Your task to perform on an android device: Do I have any events this weekend? Image 0: 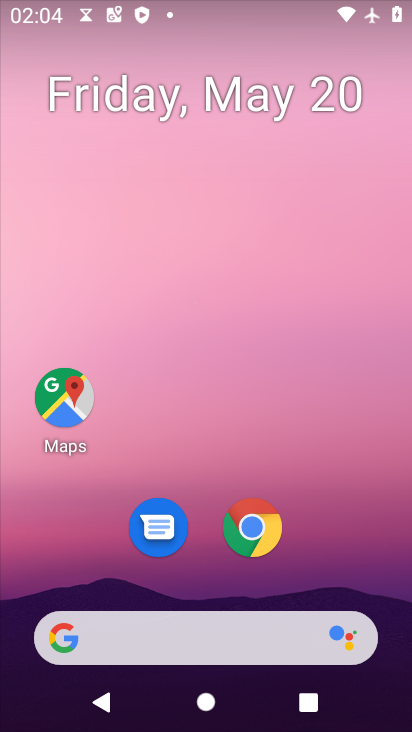
Step 0: press home button
Your task to perform on an android device: Do I have any events this weekend? Image 1: 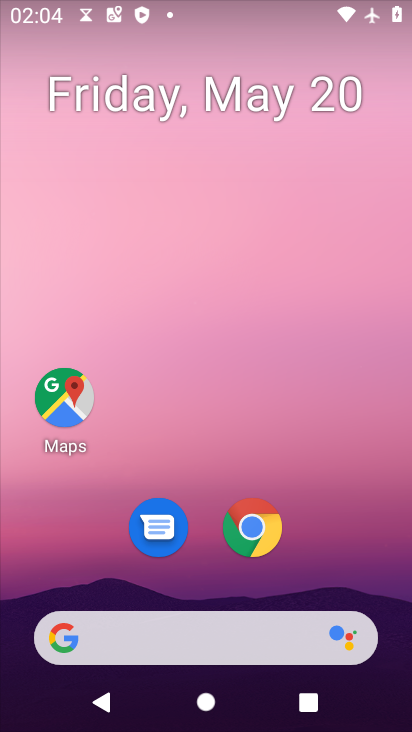
Step 1: drag from (185, 654) to (304, 183)
Your task to perform on an android device: Do I have any events this weekend? Image 2: 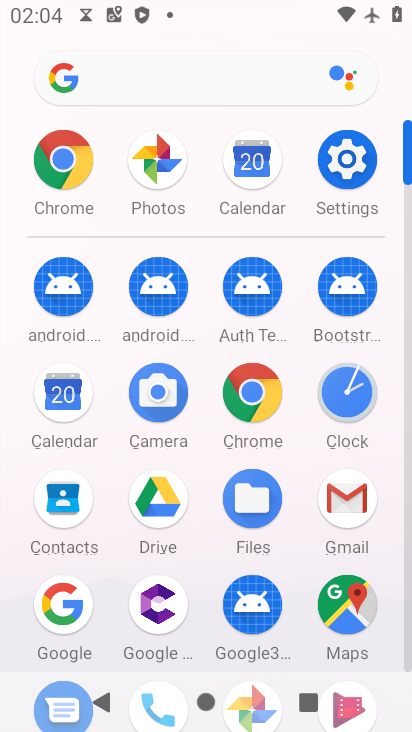
Step 2: click (257, 169)
Your task to perform on an android device: Do I have any events this weekend? Image 3: 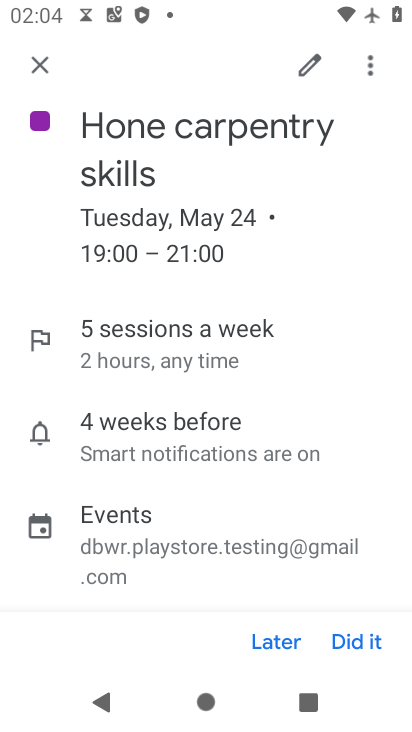
Step 3: click (33, 59)
Your task to perform on an android device: Do I have any events this weekend? Image 4: 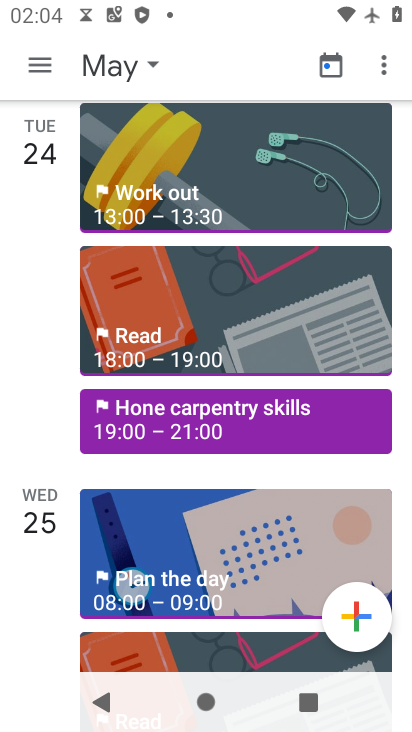
Step 4: click (127, 68)
Your task to perform on an android device: Do I have any events this weekend? Image 5: 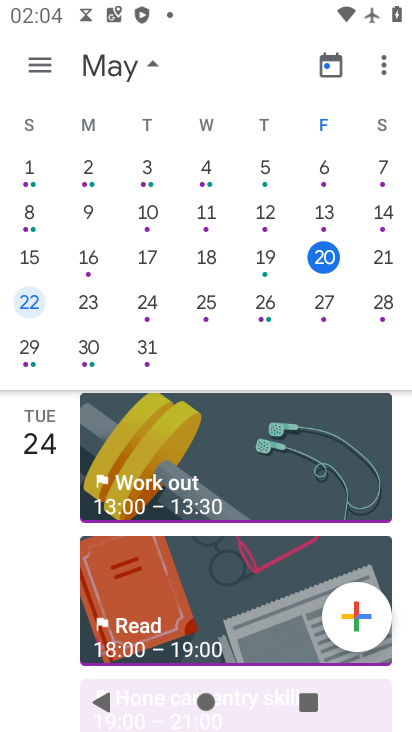
Step 5: click (390, 260)
Your task to perform on an android device: Do I have any events this weekend? Image 6: 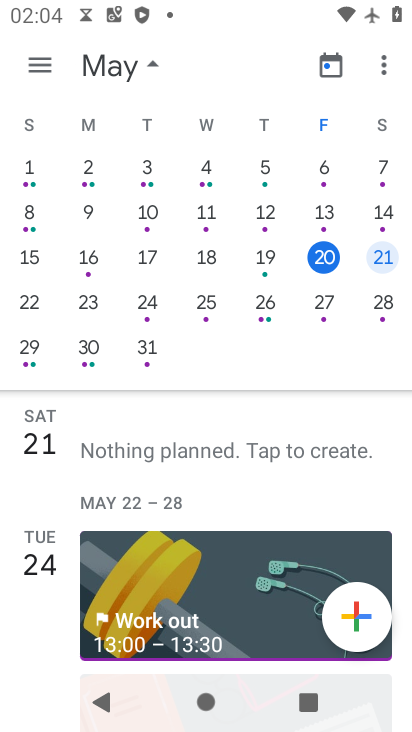
Step 6: click (46, 66)
Your task to perform on an android device: Do I have any events this weekend? Image 7: 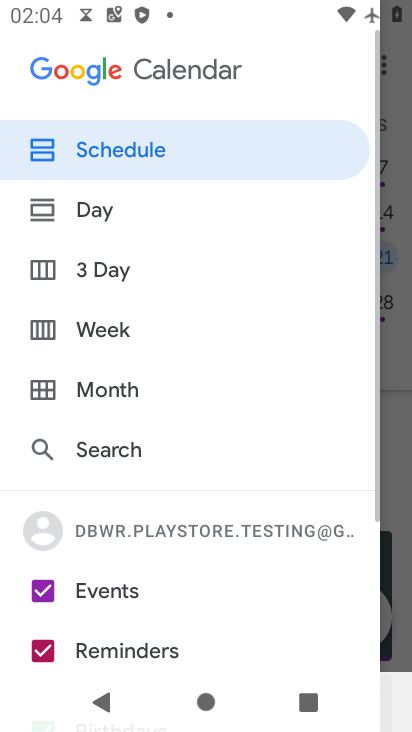
Step 7: click (126, 146)
Your task to perform on an android device: Do I have any events this weekend? Image 8: 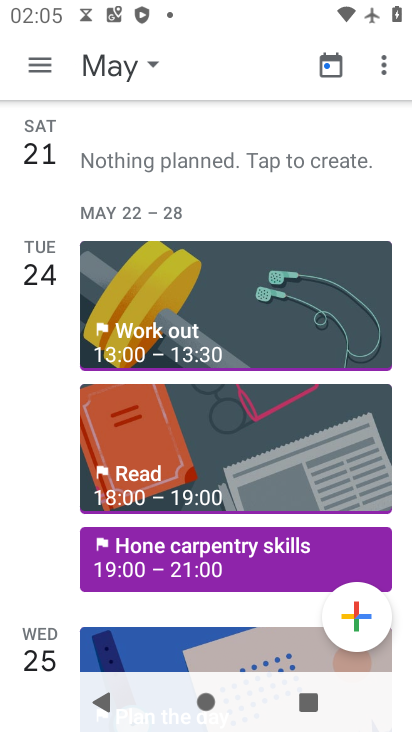
Step 8: task complete